Your task to perform on an android device: Go to Reddit.com Image 0: 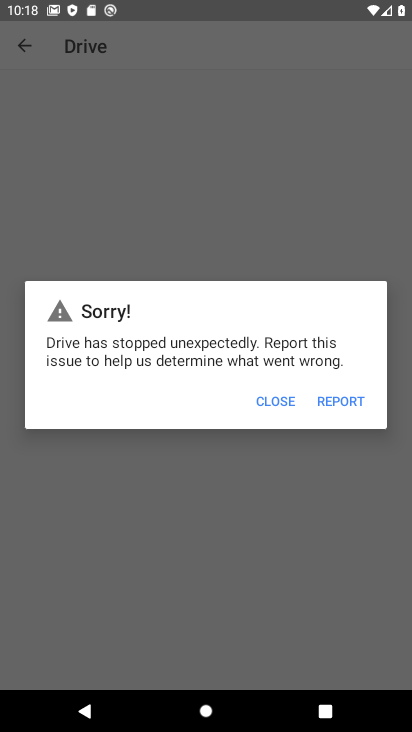
Step 0: press home button
Your task to perform on an android device: Go to Reddit.com Image 1: 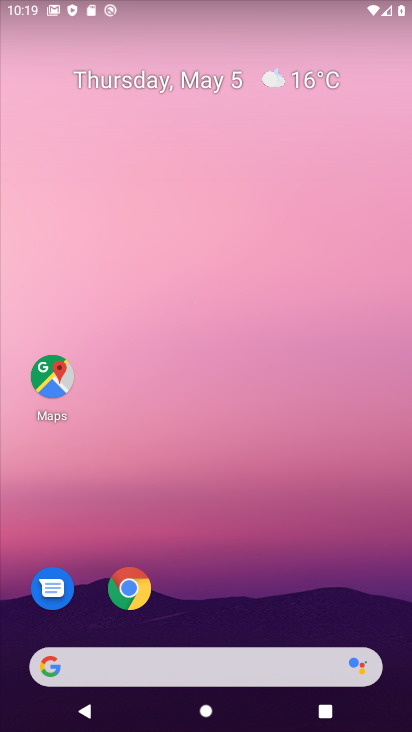
Step 1: click (136, 598)
Your task to perform on an android device: Go to Reddit.com Image 2: 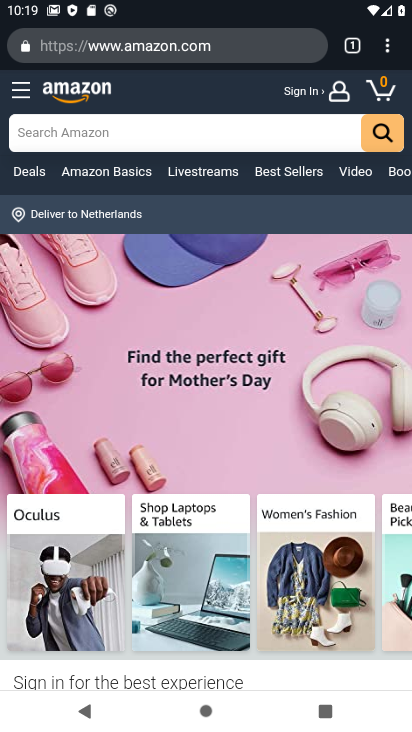
Step 2: drag from (391, 45) to (205, 86)
Your task to perform on an android device: Go to Reddit.com Image 3: 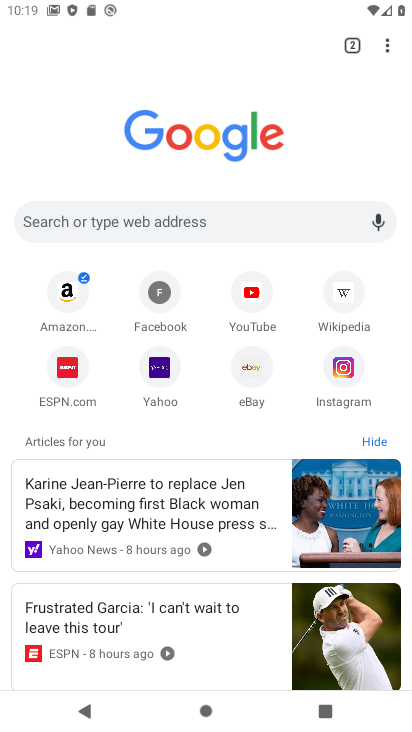
Step 3: click (173, 226)
Your task to perform on an android device: Go to Reddit.com Image 4: 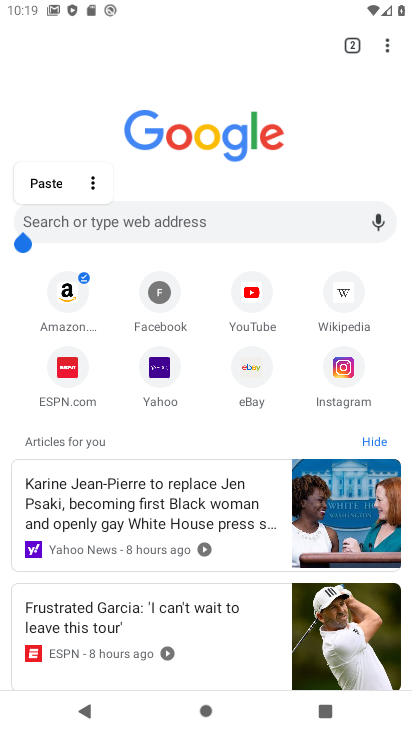
Step 4: click (249, 202)
Your task to perform on an android device: Go to Reddit.com Image 5: 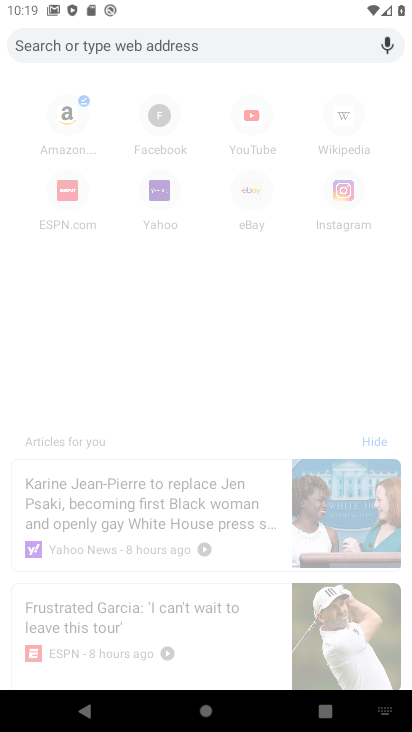
Step 5: type "Reddit.com"
Your task to perform on an android device: Go to Reddit.com Image 6: 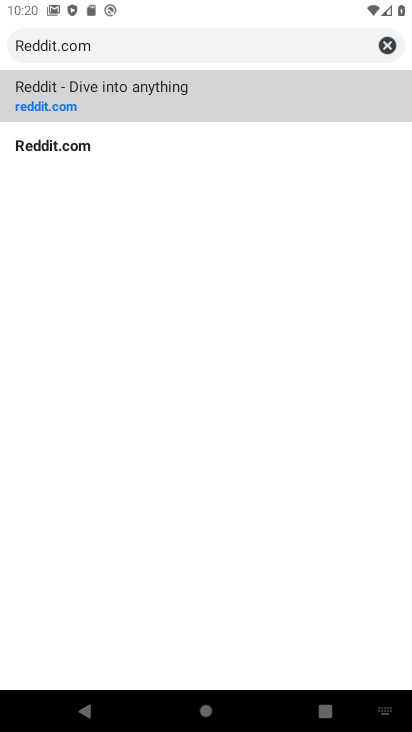
Step 6: click (106, 92)
Your task to perform on an android device: Go to Reddit.com Image 7: 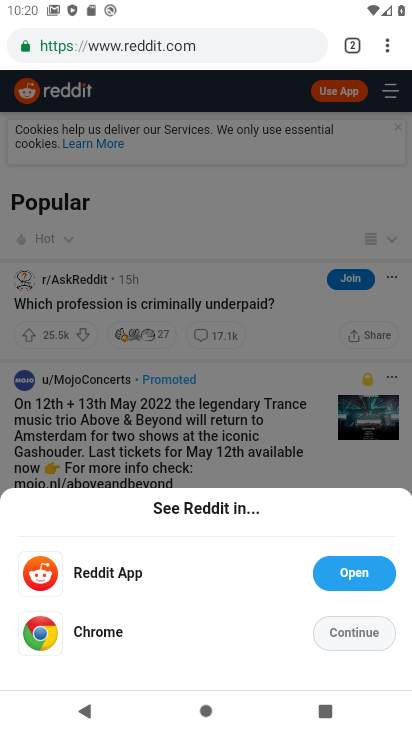
Step 7: task complete